Your task to perform on an android device: delete a single message in the gmail app Image 0: 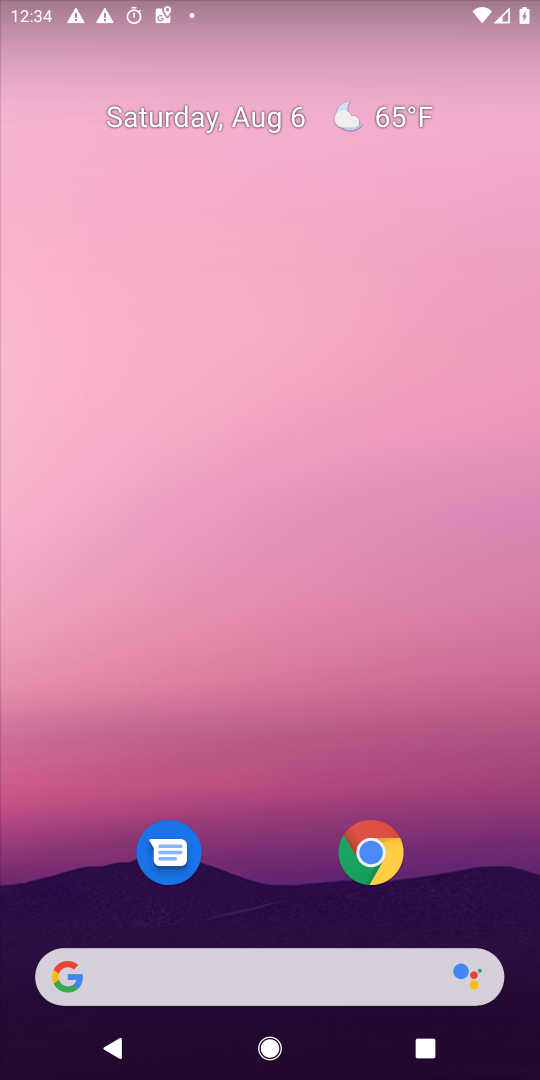
Step 0: press home button
Your task to perform on an android device: delete a single message in the gmail app Image 1: 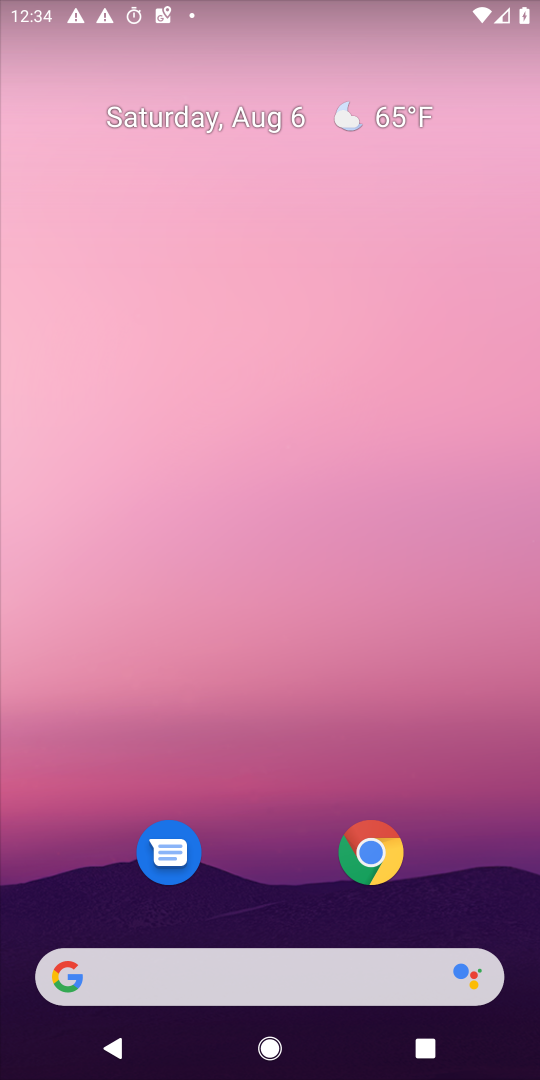
Step 1: drag from (322, 960) to (261, 196)
Your task to perform on an android device: delete a single message in the gmail app Image 2: 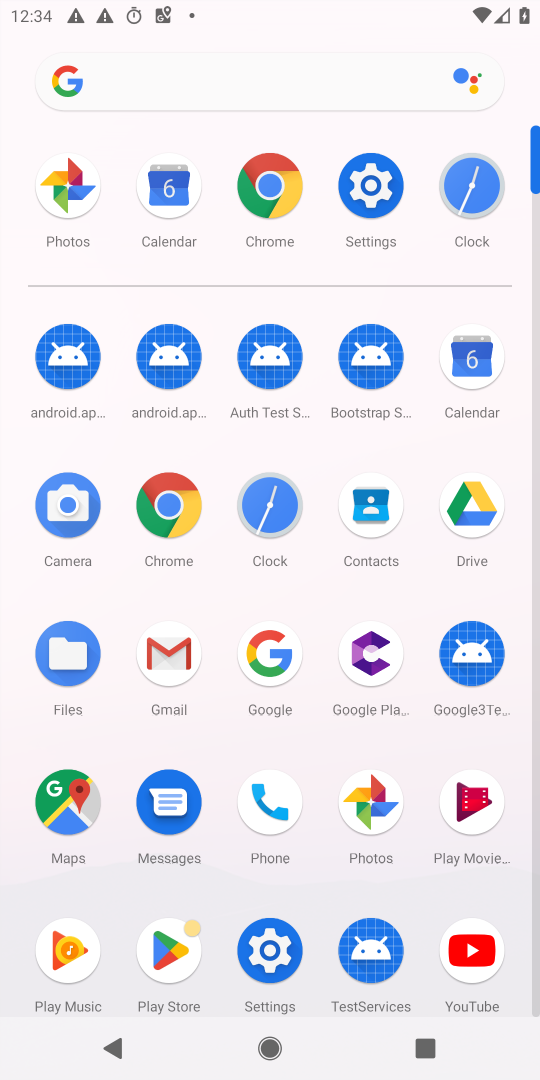
Step 2: click (172, 656)
Your task to perform on an android device: delete a single message in the gmail app Image 3: 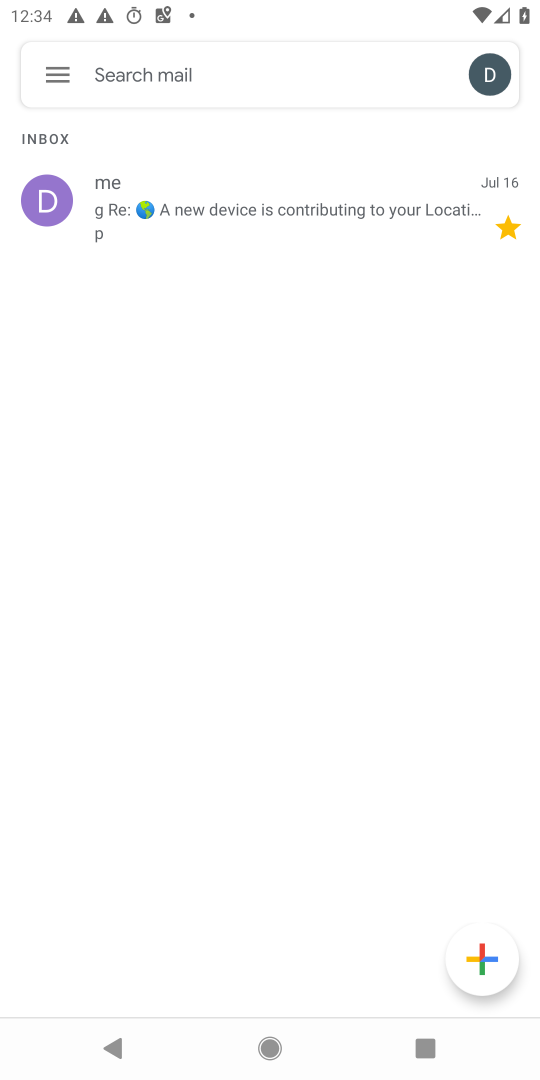
Step 3: click (188, 209)
Your task to perform on an android device: delete a single message in the gmail app Image 4: 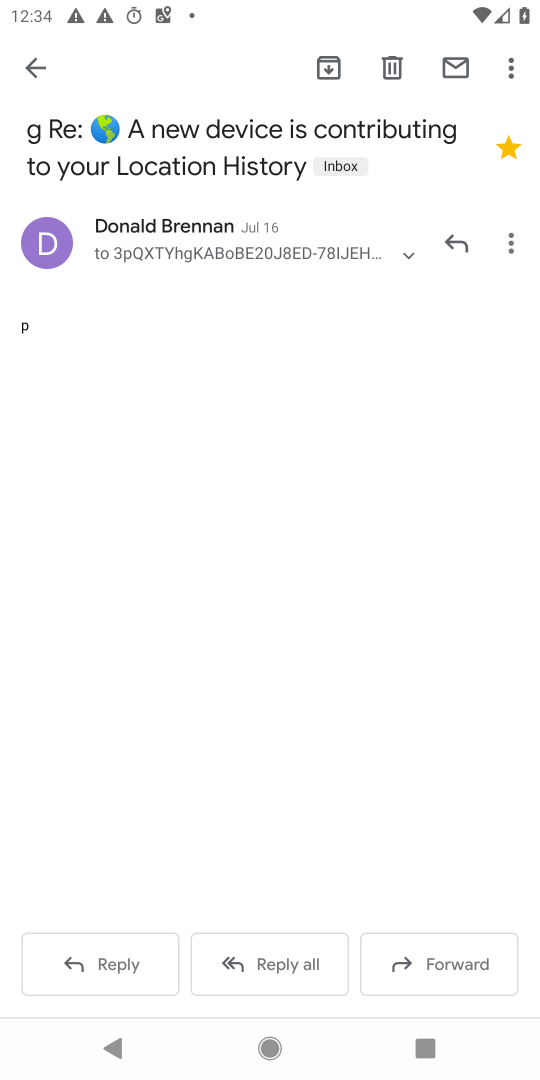
Step 4: click (387, 81)
Your task to perform on an android device: delete a single message in the gmail app Image 5: 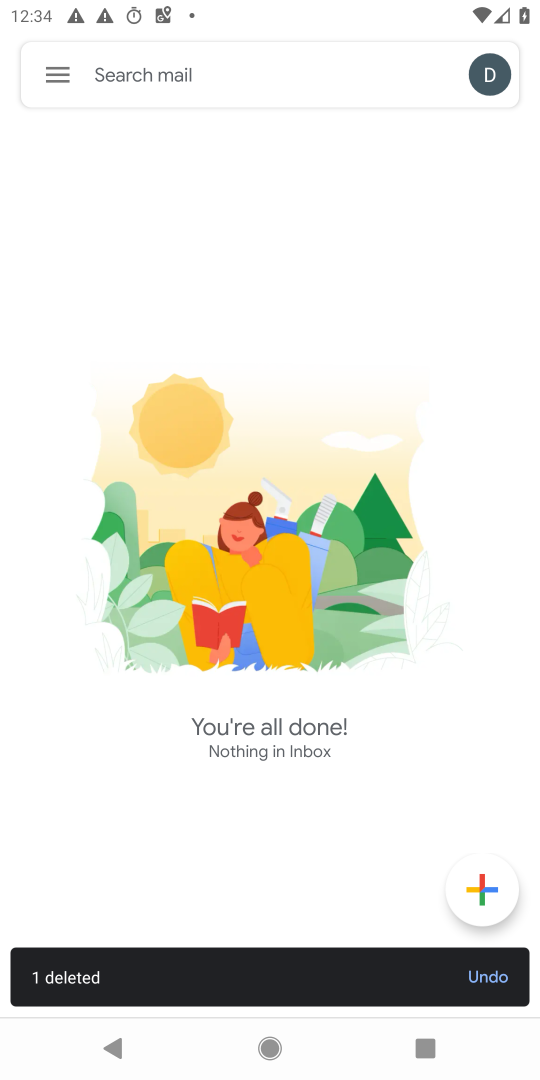
Step 5: task complete